Your task to perform on an android device: turn pop-ups off in chrome Image 0: 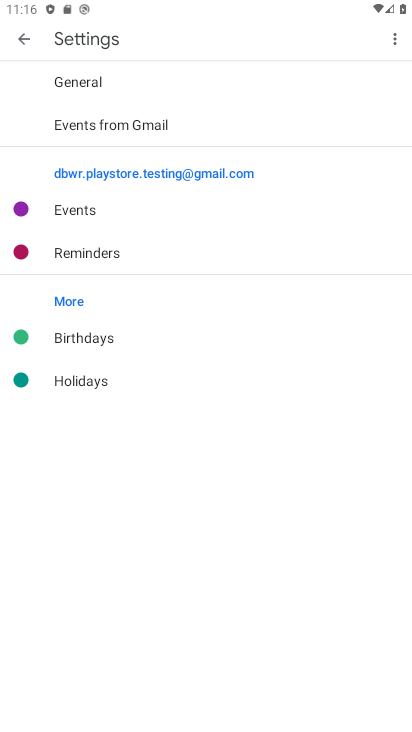
Step 0: press home button
Your task to perform on an android device: turn pop-ups off in chrome Image 1: 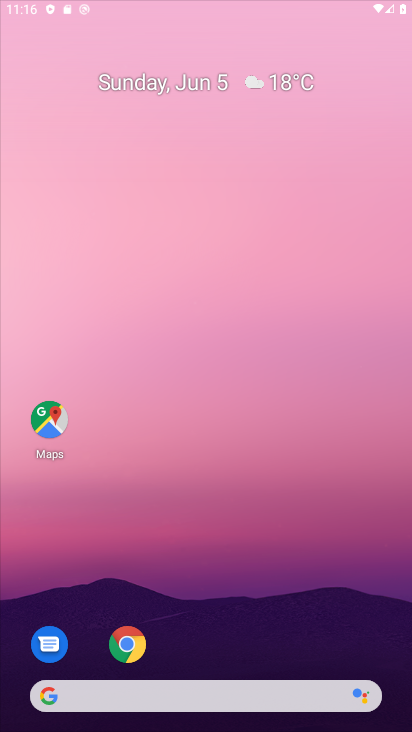
Step 1: drag from (218, 335) to (214, 199)
Your task to perform on an android device: turn pop-ups off in chrome Image 2: 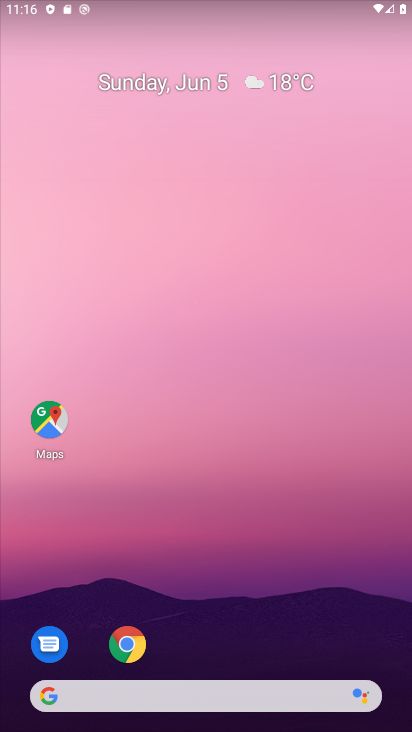
Step 2: drag from (290, 722) to (195, 187)
Your task to perform on an android device: turn pop-ups off in chrome Image 3: 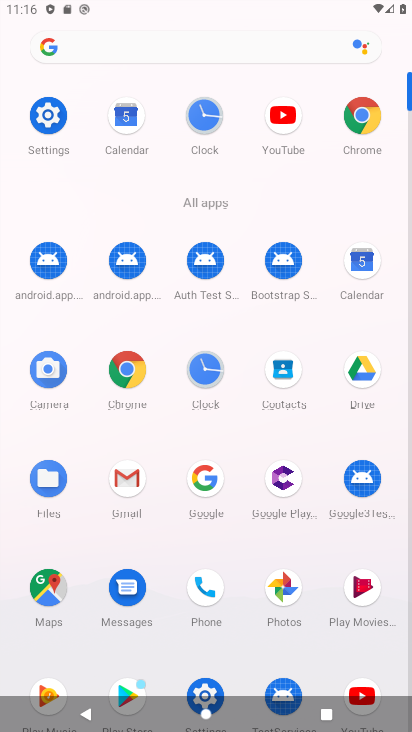
Step 3: click (358, 110)
Your task to perform on an android device: turn pop-ups off in chrome Image 4: 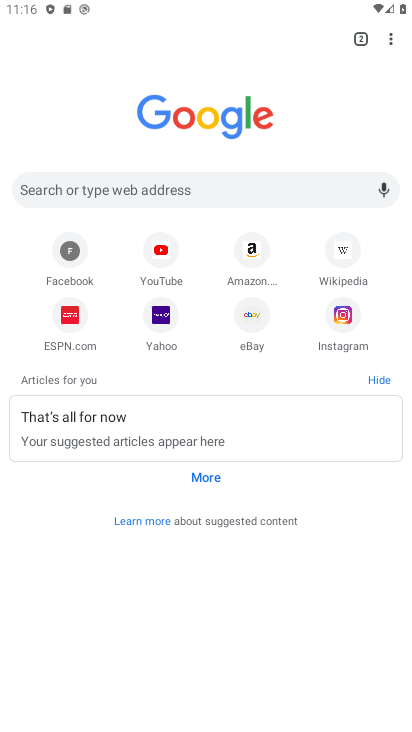
Step 4: click (387, 47)
Your task to perform on an android device: turn pop-ups off in chrome Image 5: 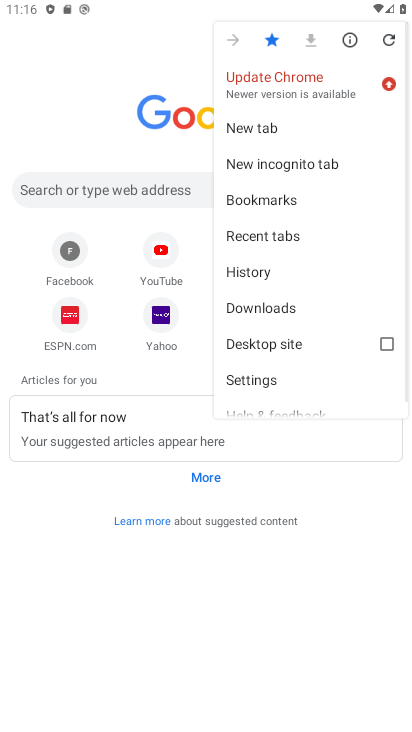
Step 5: click (254, 373)
Your task to perform on an android device: turn pop-ups off in chrome Image 6: 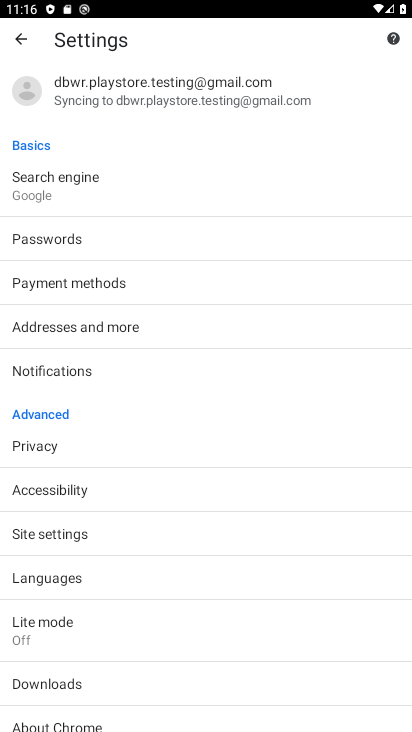
Step 6: drag from (140, 499) to (134, 346)
Your task to perform on an android device: turn pop-ups off in chrome Image 7: 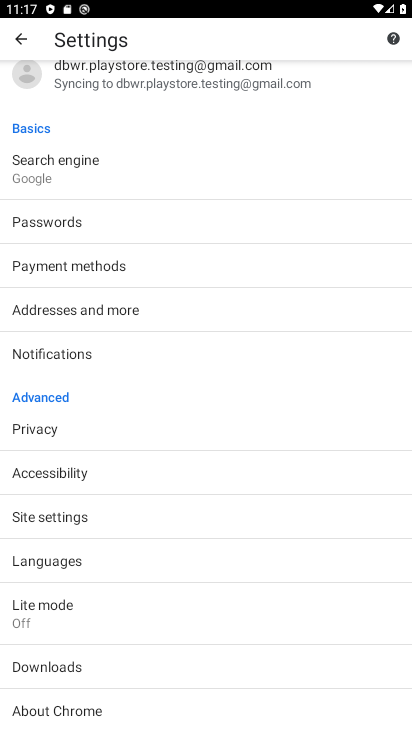
Step 7: click (73, 516)
Your task to perform on an android device: turn pop-ups off in chrome Image 8: 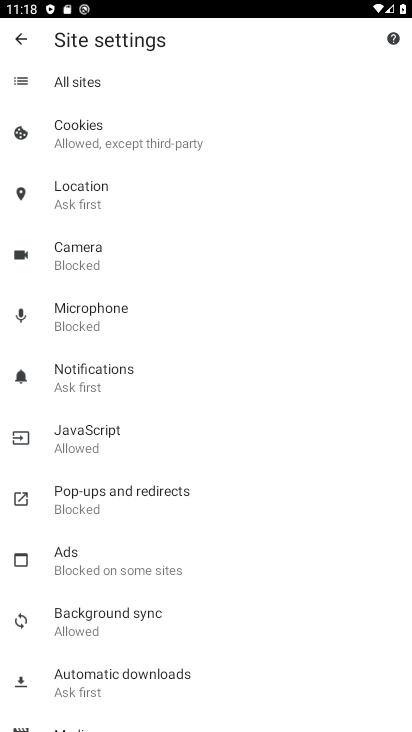
Step 8: click (128, 508)
Your task to perform on an android device: turn pop-ups off in chrome Image 9: 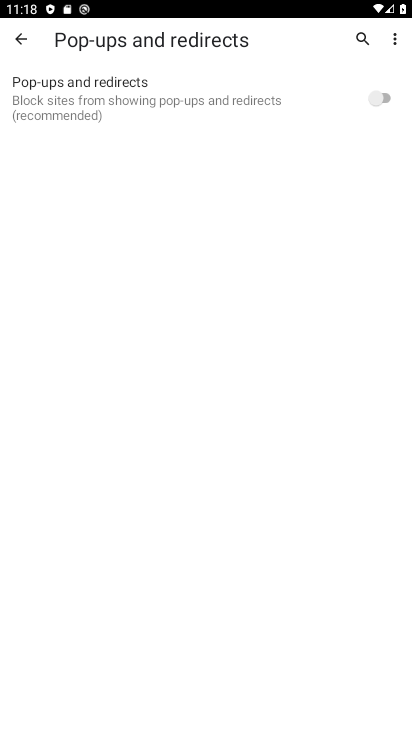
Step 9: task complete